Your task to perform on an android device: change the upload size in google photos Image 0: 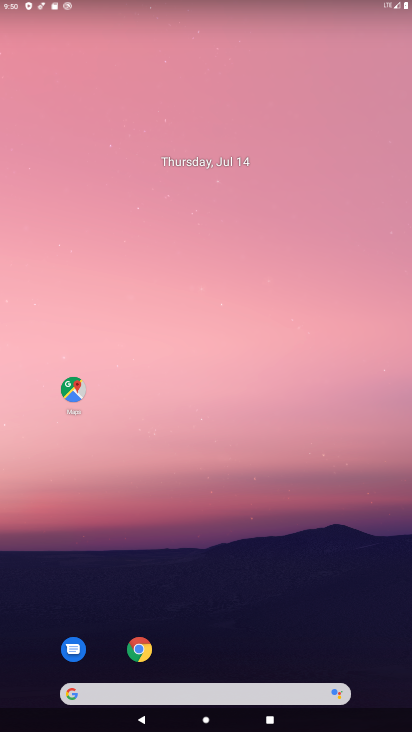
Step 0: drag from (206, 626) to (226, 188)
Your task to perform on an android device: change the upload size in google photos Image 1: 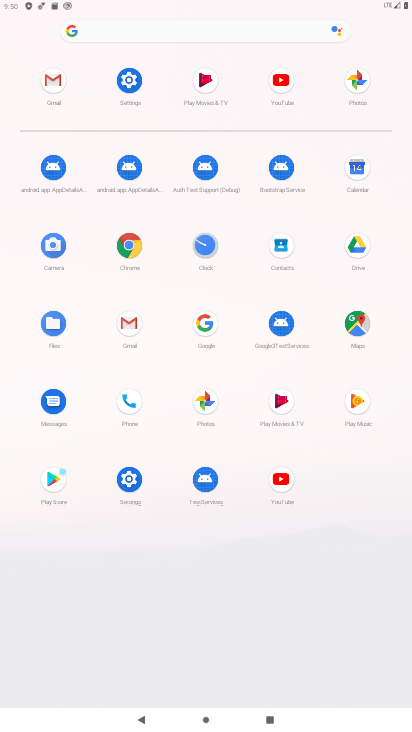
Step 1: click (351, 85)
Your task to perform on an android device: change the upload size in google photos Image 2: 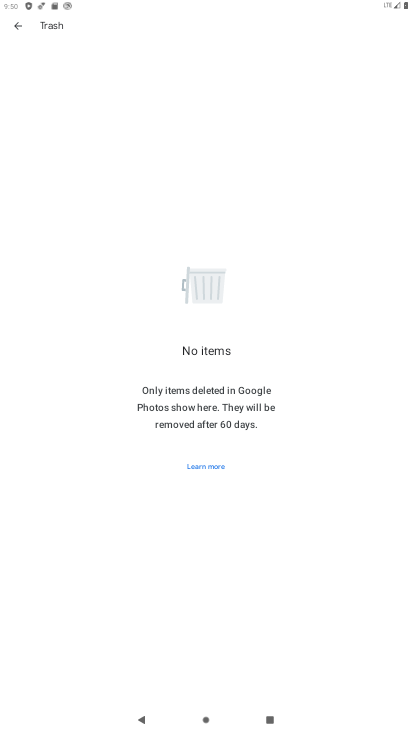
Step 2: click (21, 30)
Your task to perform on an android device: change the upload size in google photos Image 3: 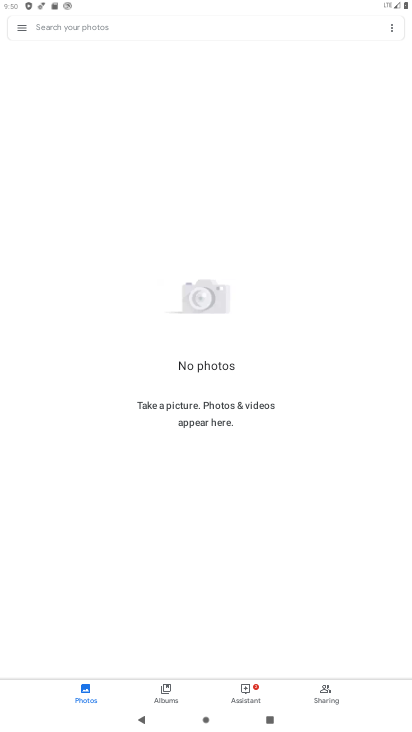
Step 3: click (21, 30)
Your task to perform on an android device: change the upload size in google photos Image 4: 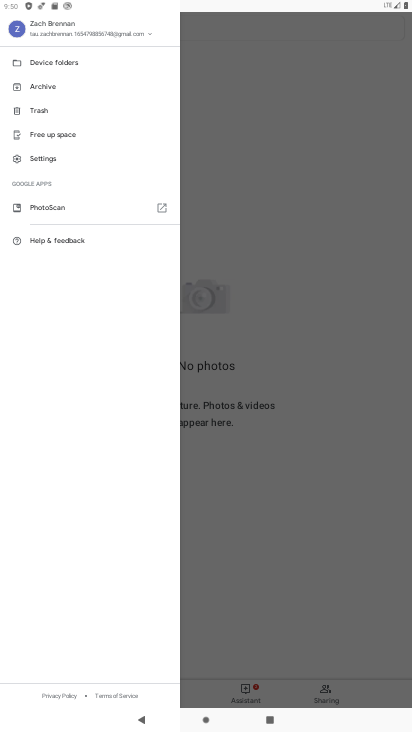
Step 4: click (55, 163)
Your task to perform on an android device: change the upload size in google photos Image 5: 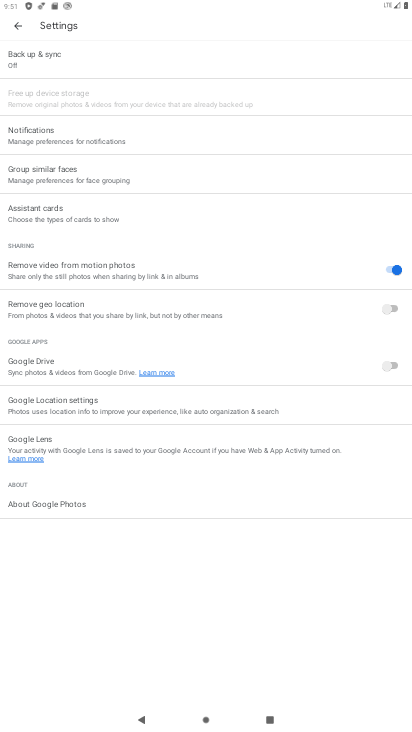
Step 5: click (47, 55)
Your task to perform on an android device: change the upload size in google photos Image 6: 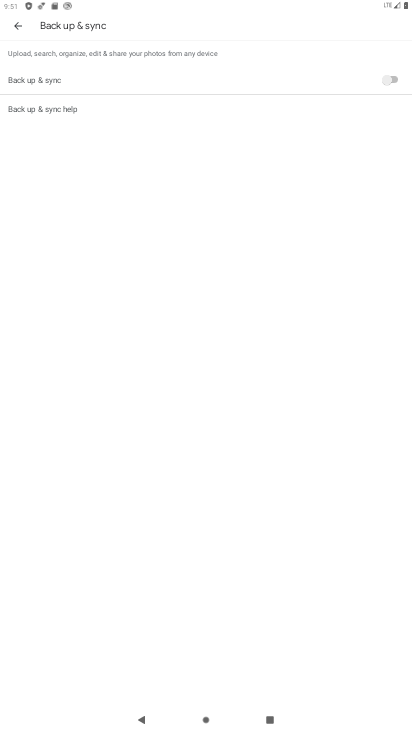
Step 6: click (391, 77)
Your task to perform on an android device: change the upload size in google photos Image 7: 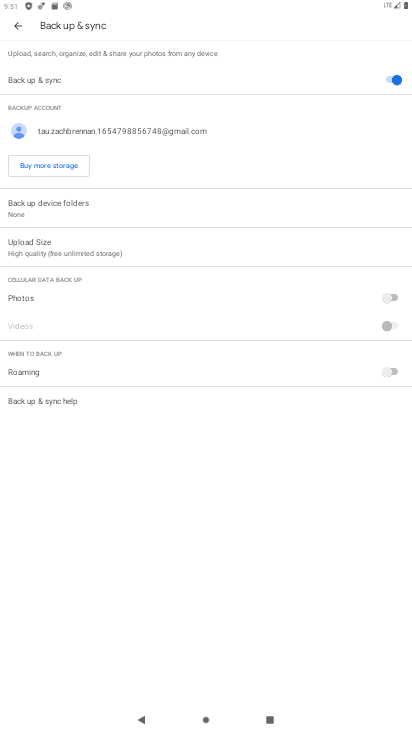
Step 7: click (59, 232)
Your task to perform on an android device: change the upload size in google photos Image 8: 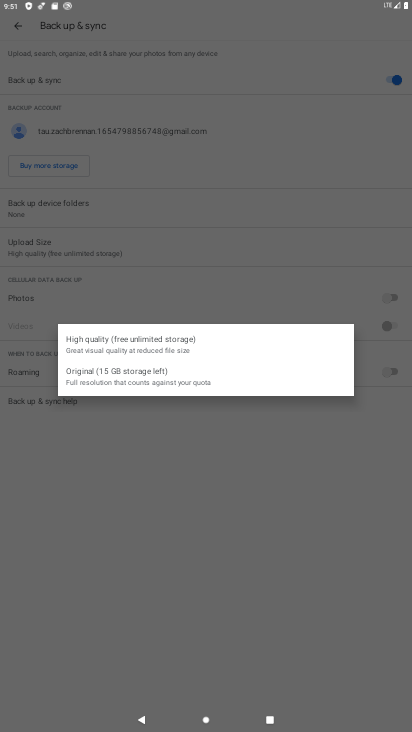
Step 8: click (114, 375)
Your task to perform on an android device: change the upload size in google photos Image 9: 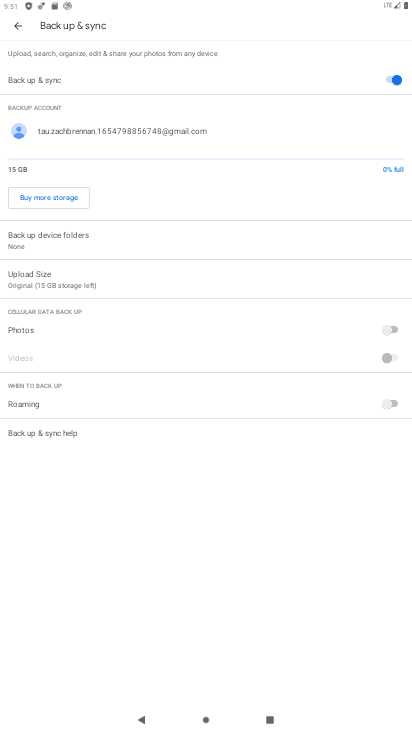
Step 9: task complete